Your task to perform on an android device: turn off notifications settings in the gmail app Image 0: 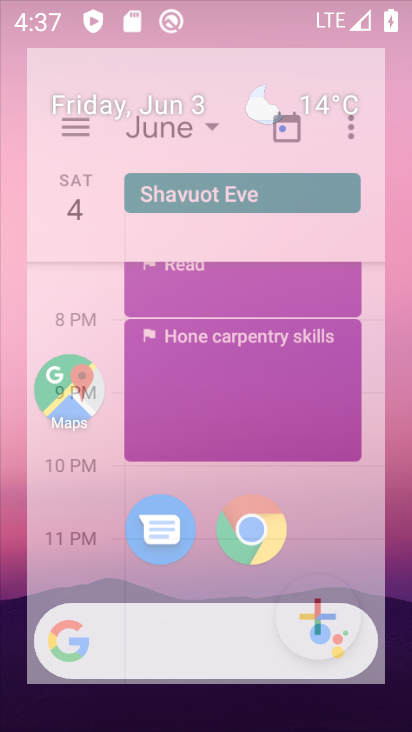
Step 0: press home button
Your task to perform on an android device: turn off notifications settings in the gmail app Image 1: 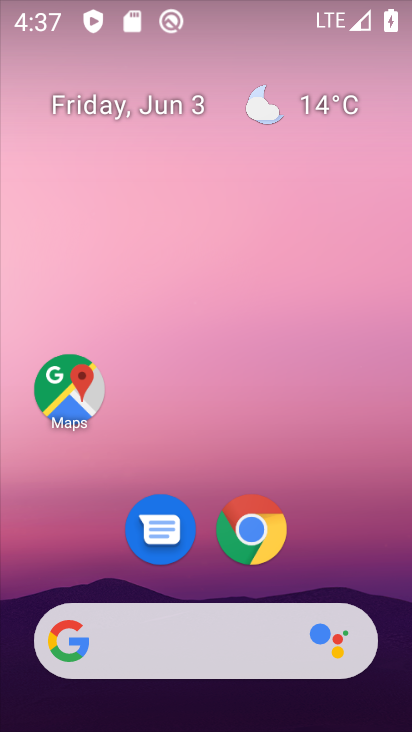
Step 1: drag from (210, 517) to (229, 109)
Your task to perform on an android device: turn off notifications settings in the gmail app Image 2: 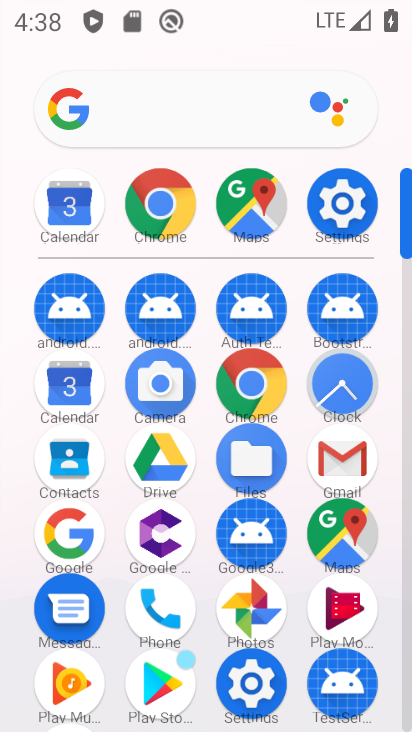
Step 2: click (340, 448)
Your task to perform on an android device: turn off notifications settings in the gmail app Image 3: 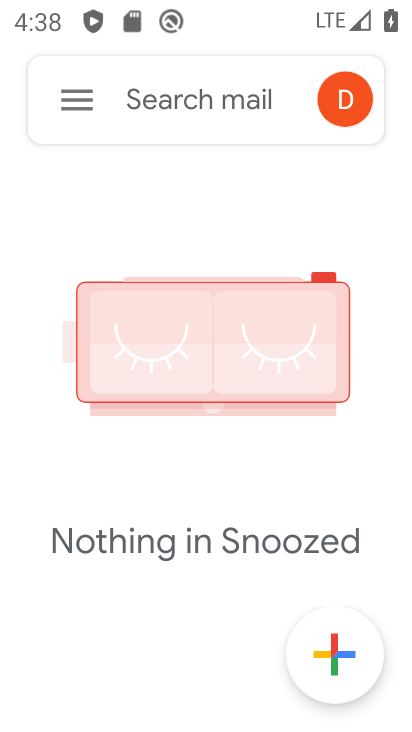
Step 3: click (70, 101)
Your task to perform on an android device: turn off notifications settings in the gmail app Image 4: 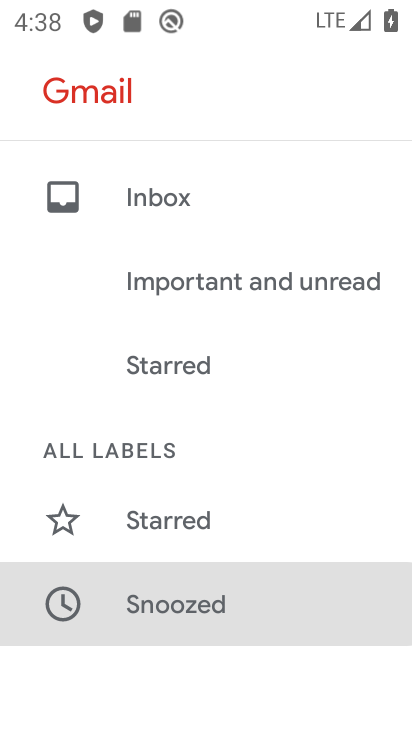
Step 4: drag from (226, 612) to (221, 332)
Your task to perform on an android device: turn off notifications settings in the gmail app Image 5: 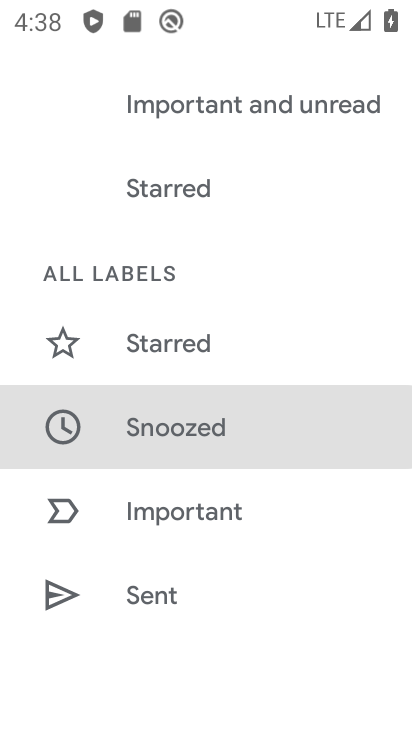
Step 5: drag from (217, 172) to (217, 23)
Your task to perform on an android device: turn off notifications settings in the gmail app Image 6: 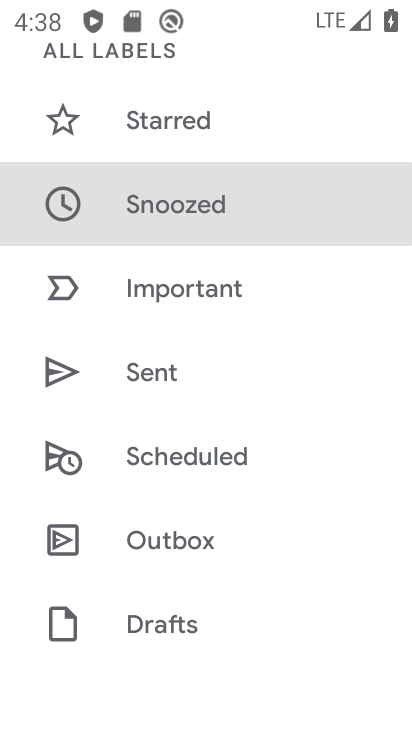
Step 6: drag from (217, 604) to (232, 84)
Your task to perform on an android device: turn off notifications settings in the gmail app Image 7: 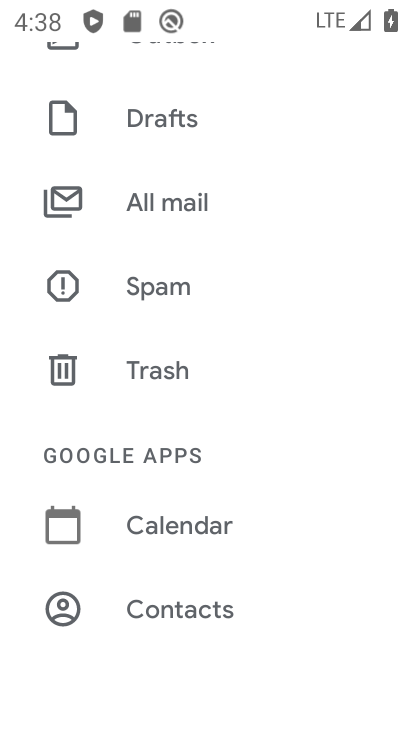
Step 7: drag from (215, 584) to (226, 75)
Your task to perform on an android device: turn off notifications settings in the gmail app Image 8: 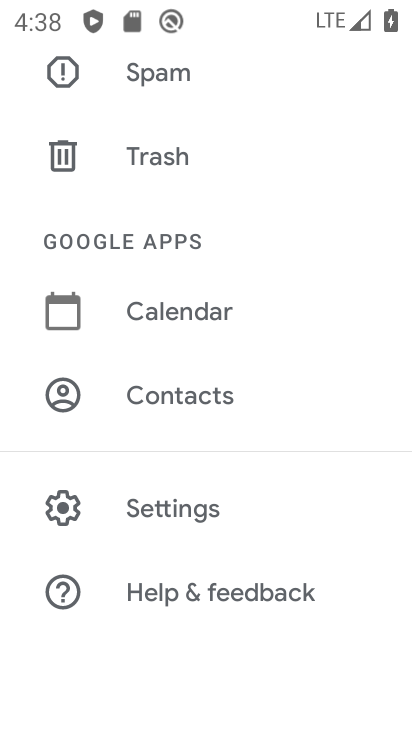
Step 8: click (234, 496)
Your task to perform on an android device: turn off notifications settings in the gmail app Image 9: 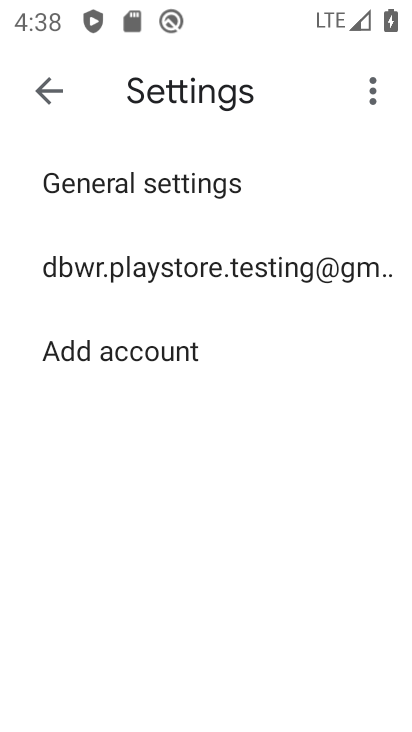
Step 9: click (258, 181)
Your task to perform on an android device: turn off notifications settings in the gmail app Image 10: 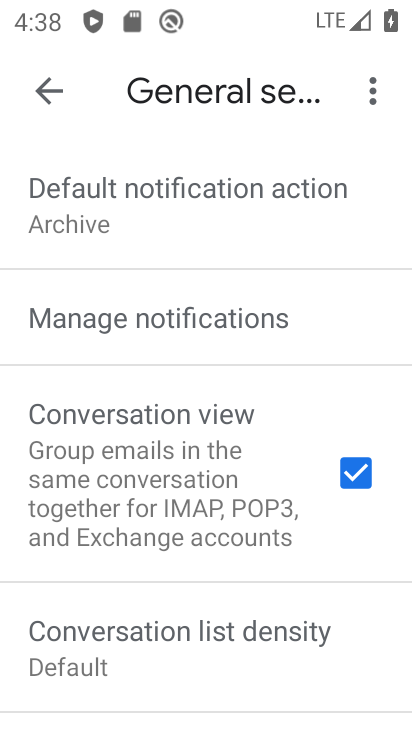
Step 10: click (311, 309)
Your task to perform on an android device: turn off notifications settings in the gmail app Image 11: 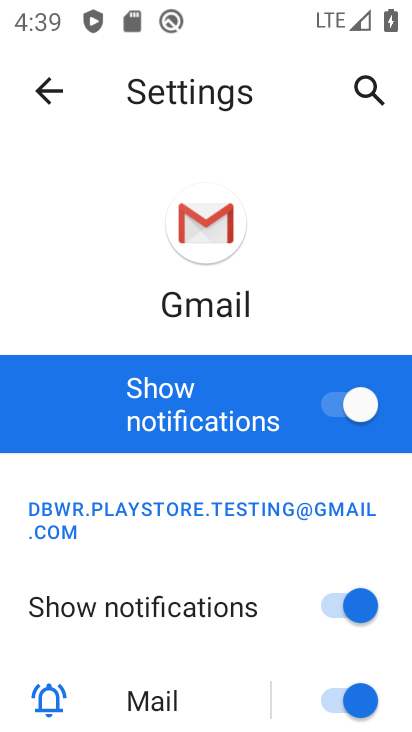
Step 11: click (339, 404)
Your task to perform on an android device: turn off notifications settings in the gmail app Image 12: 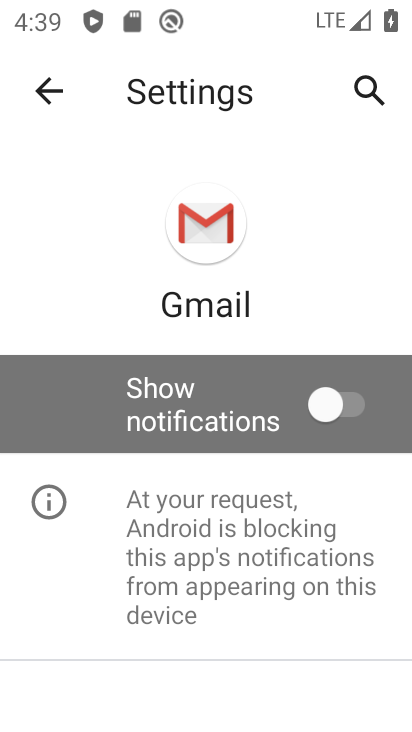
Step 12: task complete